Your task to perform on an android device: refresh tabs in the chrome app Image 0: 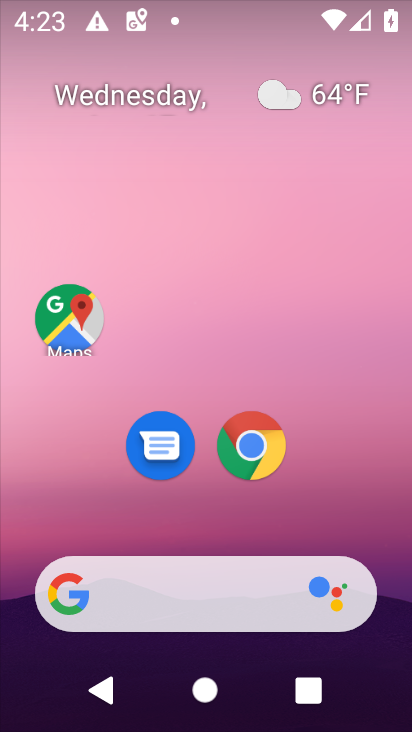
Step 0: click (246, 440)
Your task to perform on an android device: refresh tabs in the chrome app Image 1: 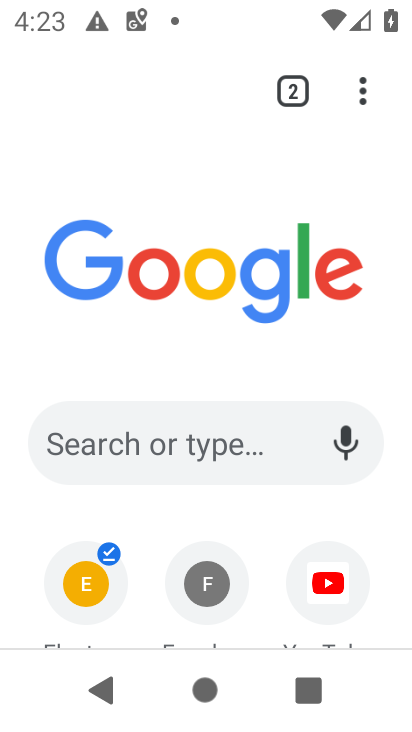
Step 1: click (365, 74)
Your task to perform on an android device: refresh tabs in the chrome app Image 2: 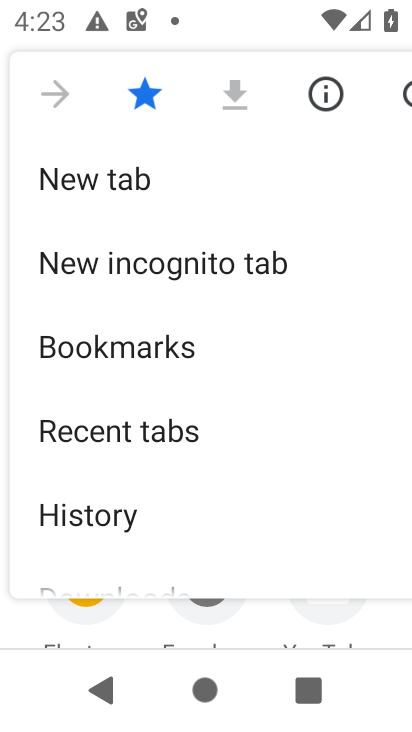
Step 2: click (392, 97)
Your task to perform on an android device: refresh tabs in the chrome app Image 3: 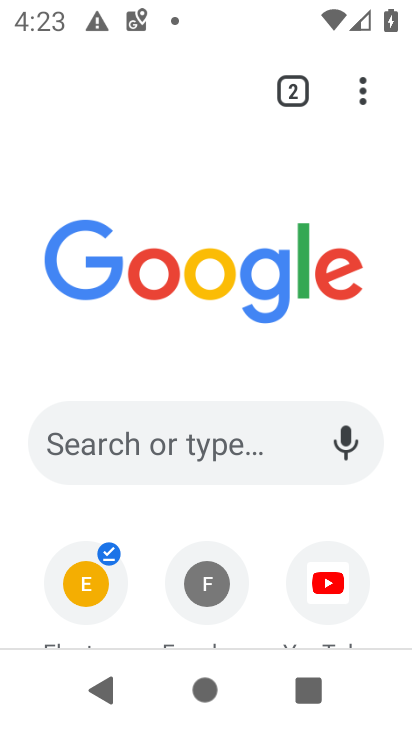
Step 3: task complete